Your task to perform on an android device: turn pop-ups on in chrome Image 0: 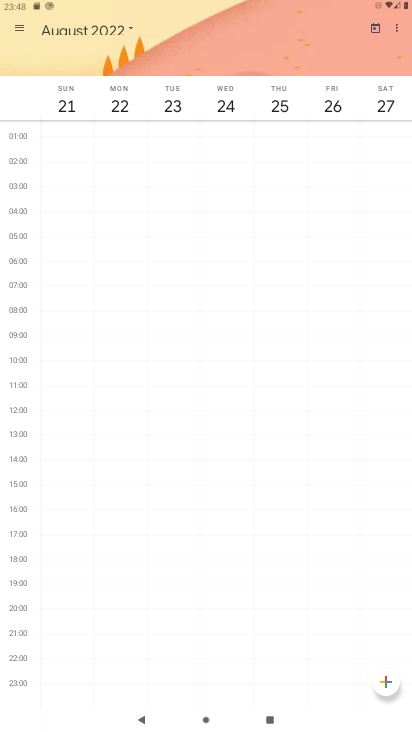
Step 0: press home button
Your task to perform on an android device: turn pop-ups on in chrome Image 1: 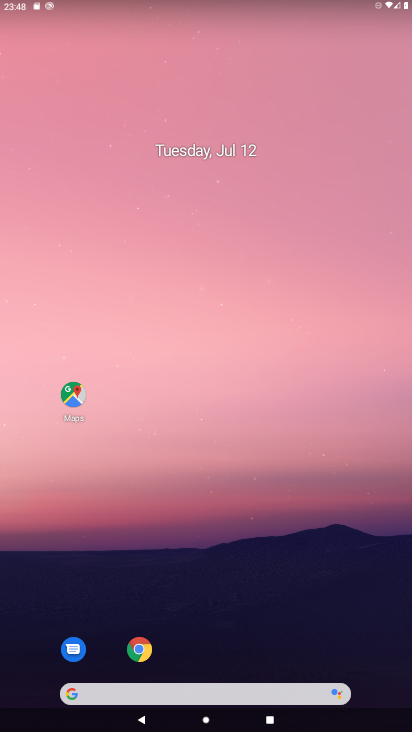
Step 1: click (137, 650)
Your task to perform on an android device: turn pop-ups on in chrome Image 2: 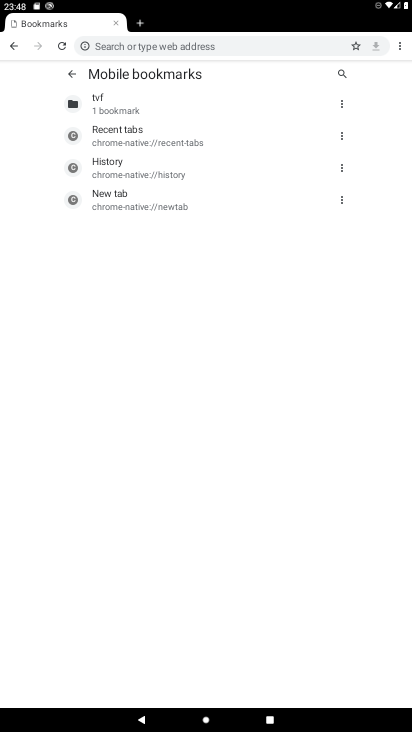
Step 2: click (401, 49)
Your task to perform on an android device: turn pop-ups on in chrome Image 3: 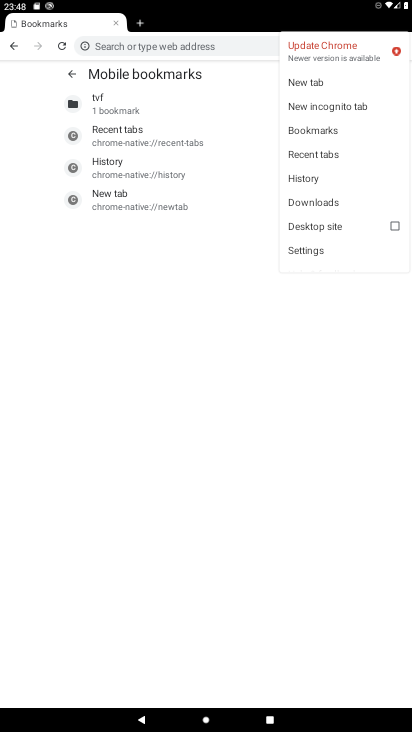
Step 3: click (313, 248)
Your task to perform on an android device: turn pop-ups on in chrome Image 4: 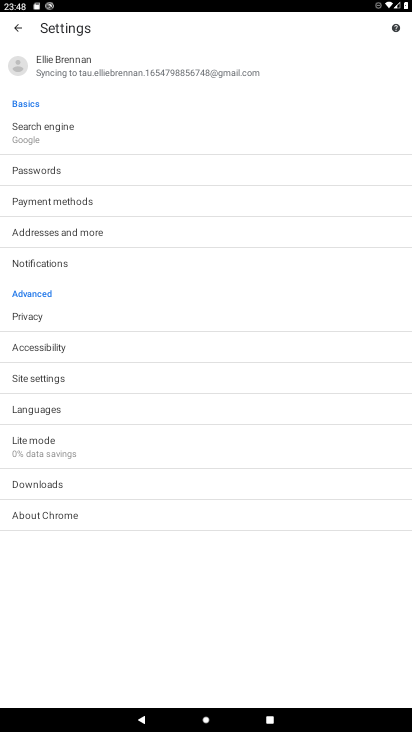
Step 4: click (29, 375)
Your task to perform on an android device: turn pop-ups on in chrome Image 5: 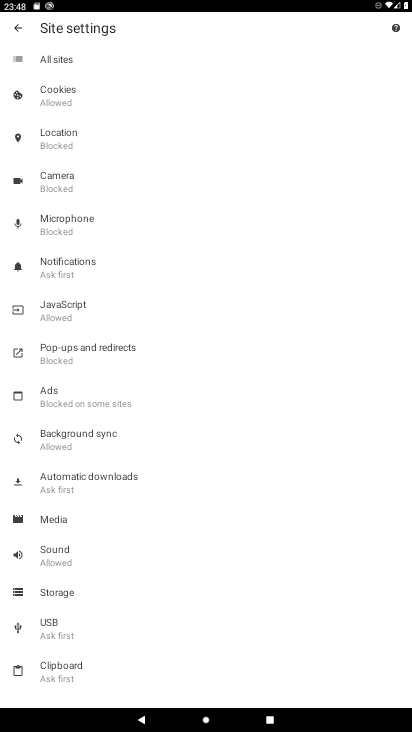
Step 5: click (64, 352)
Your task to perform on an android device: turn pop-ups on in chrome Image 6: 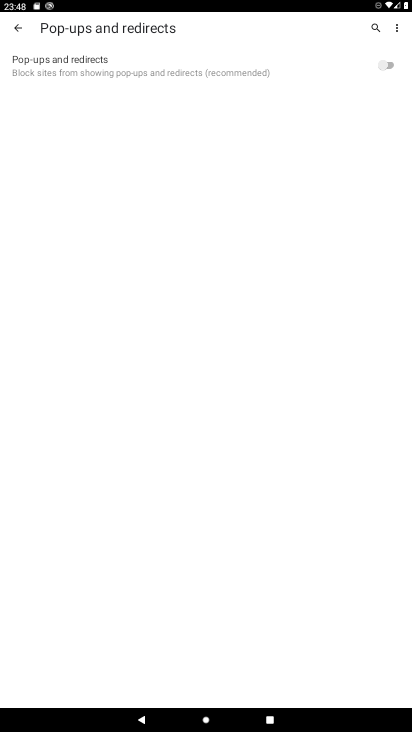
Step 6: click (392, 63)
Your task to perform on an android device: turn pop-ups on in chrome Image 7: 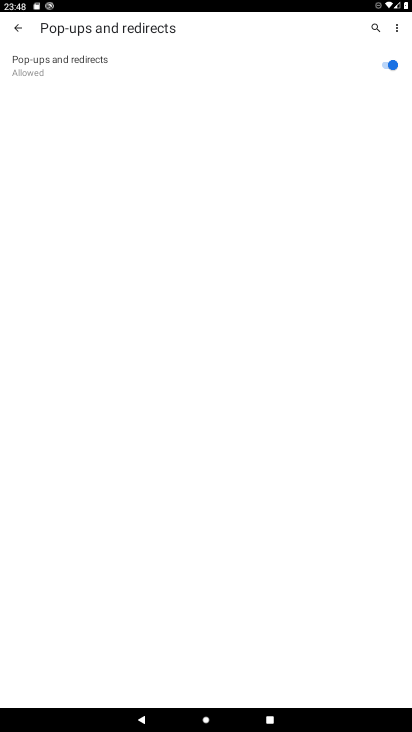
Step 7: task complete